Your task to perform on an android device: open app "Move to iOS" Image 0: 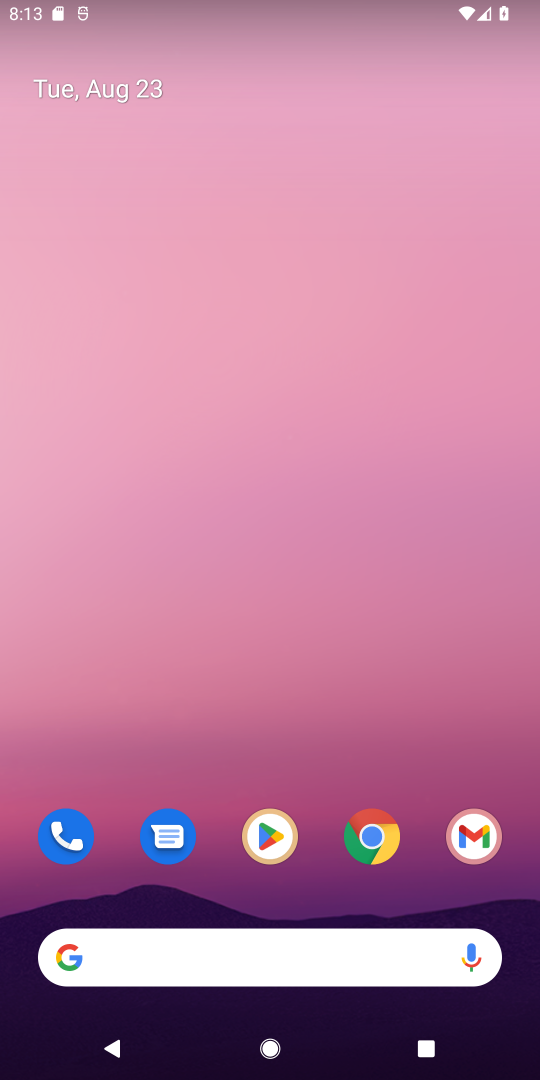
Step 0: click (260, 843)
Your task to perform on an android device: open app "Move to iOS" Image 1: 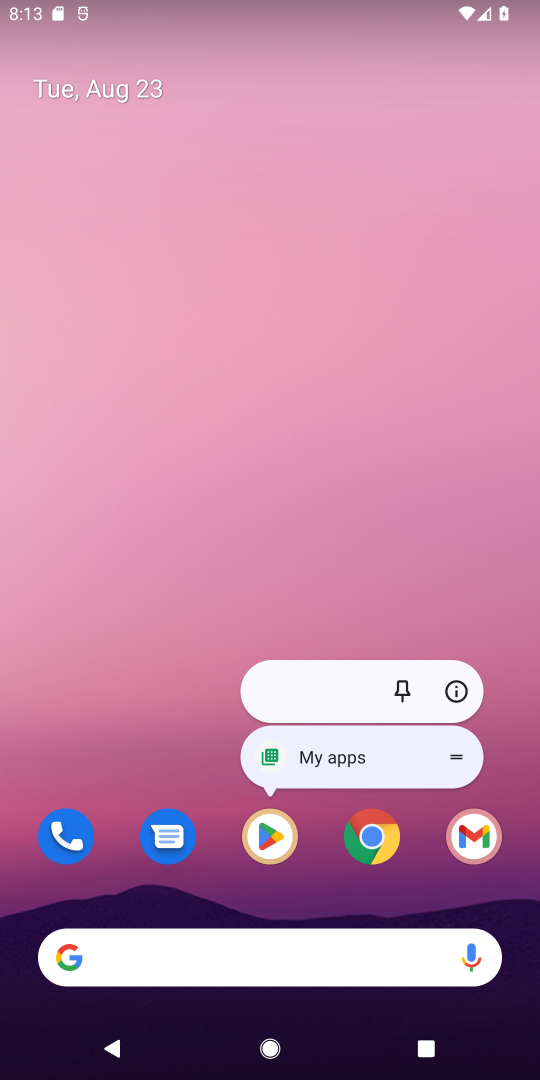
Step 1: click (275, 840)
Your task to perform on an android device: open app "Move to iOS" Image 2: 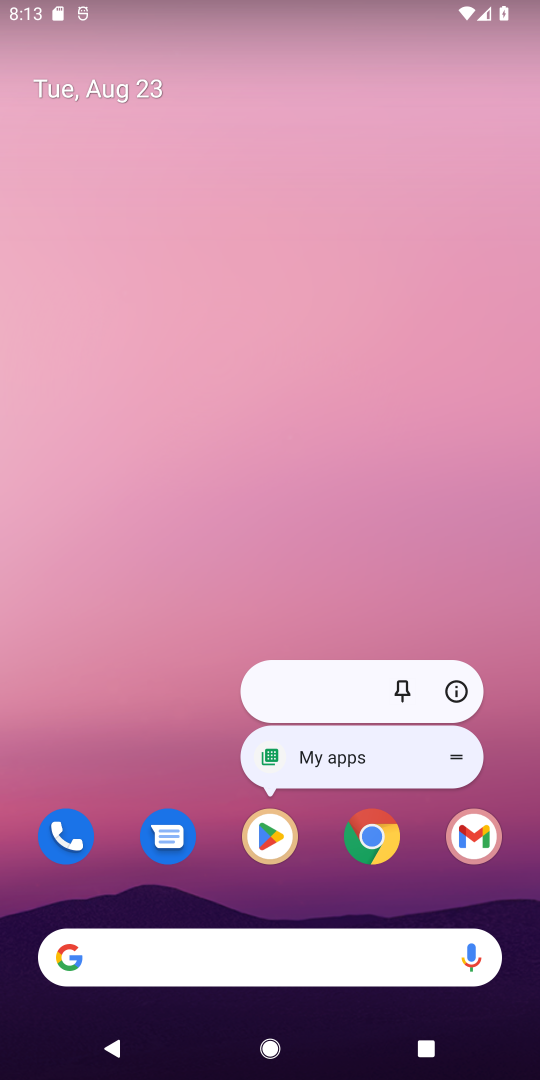
Step 2: click (266, 839)
Your task to perform on an android device: open app "Move to iOS" Image 3: 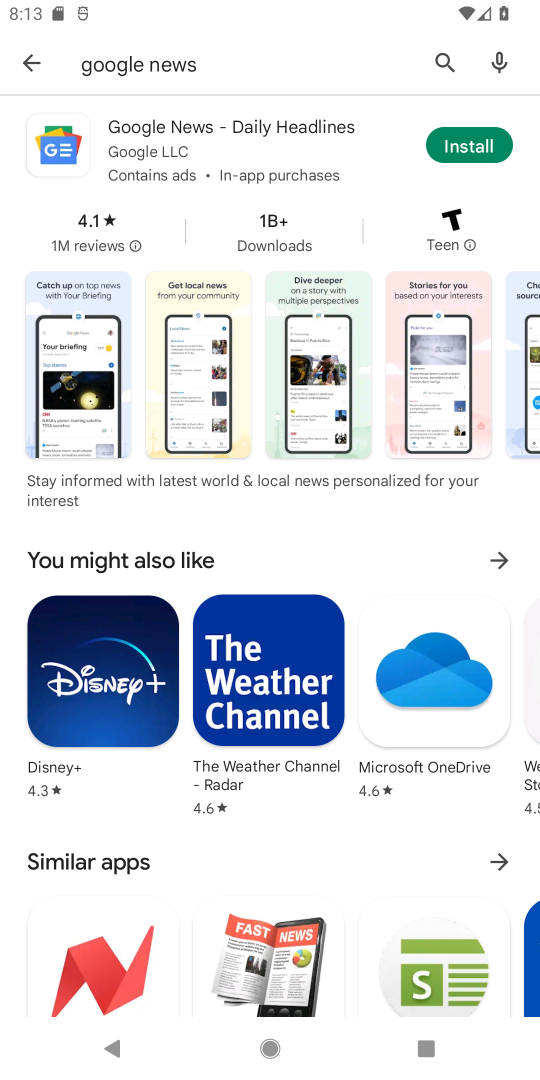
Step 3: click (441, 51)
Your task to perform on an android device: open app "Move to iOS" Image 4: 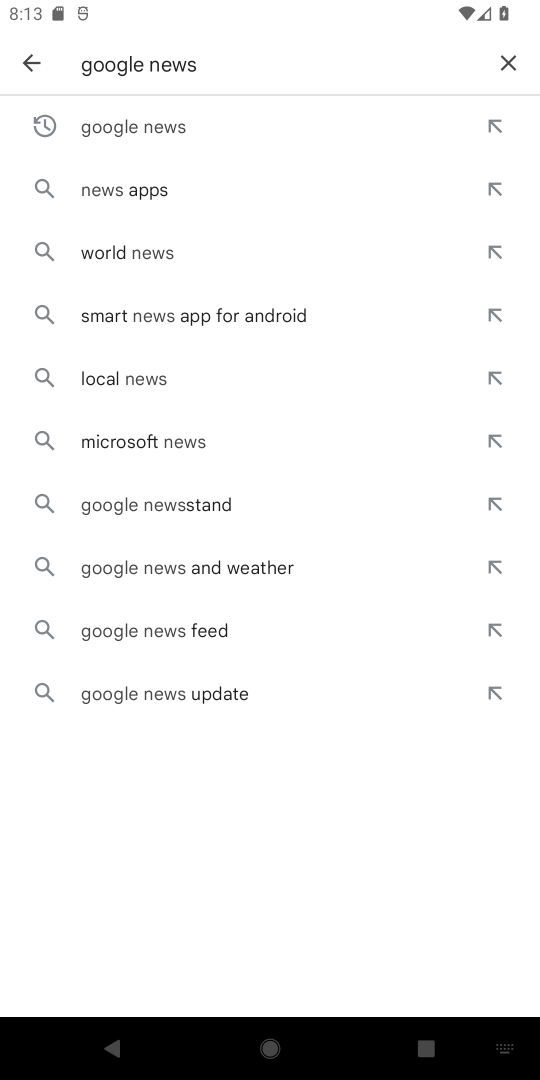
Step 4: click (506, 52)
Your task to perform on an android device: open app "Move to iOS" Image 5: 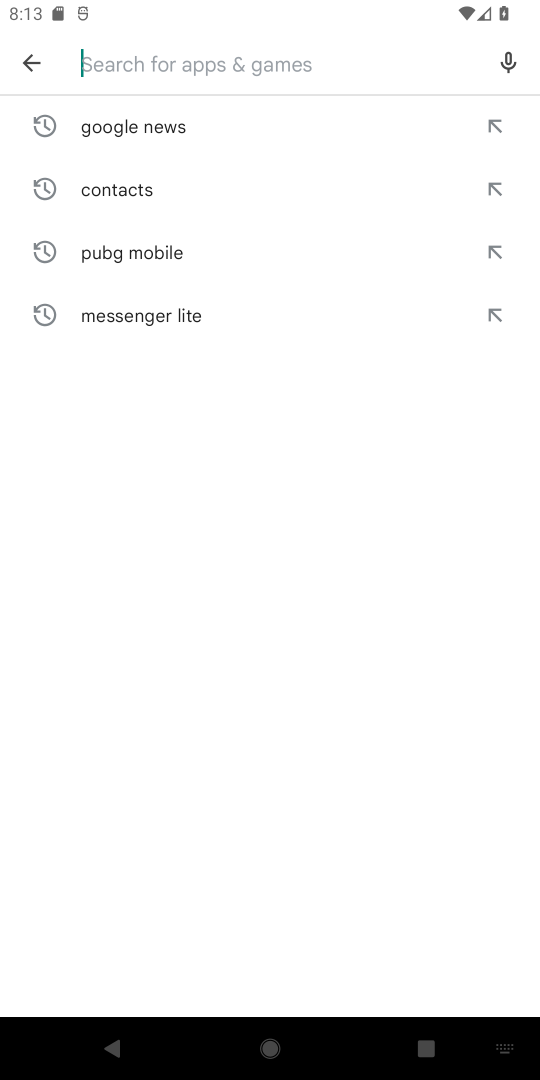
Step 5: type "Move to iOS"
Your task to perform on an android device: open app "Move to iOS" Image 6: 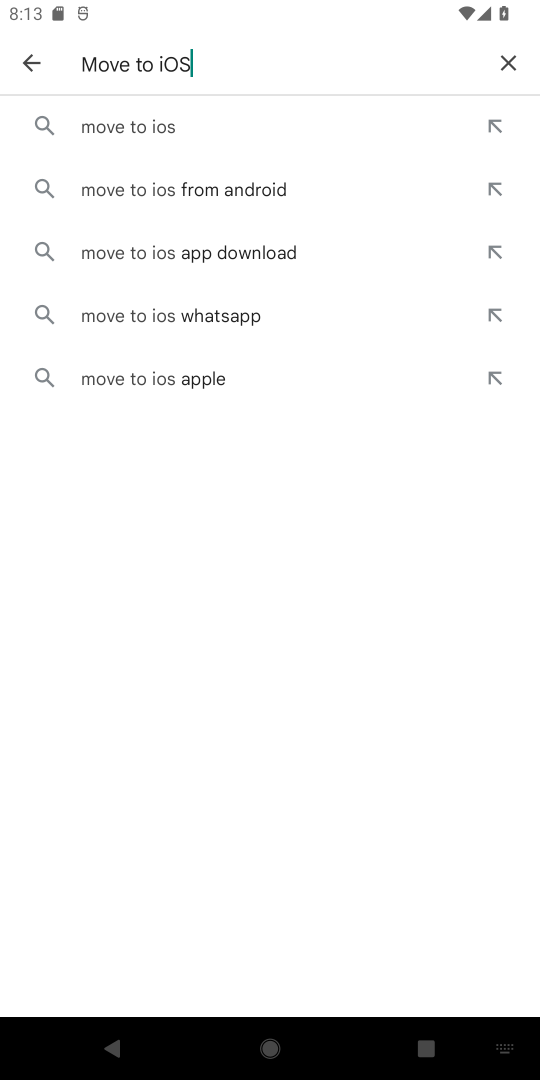
Step 6: click (143, 124)
Your task to perform on an android device: open app "Move to iOS" Image 7: 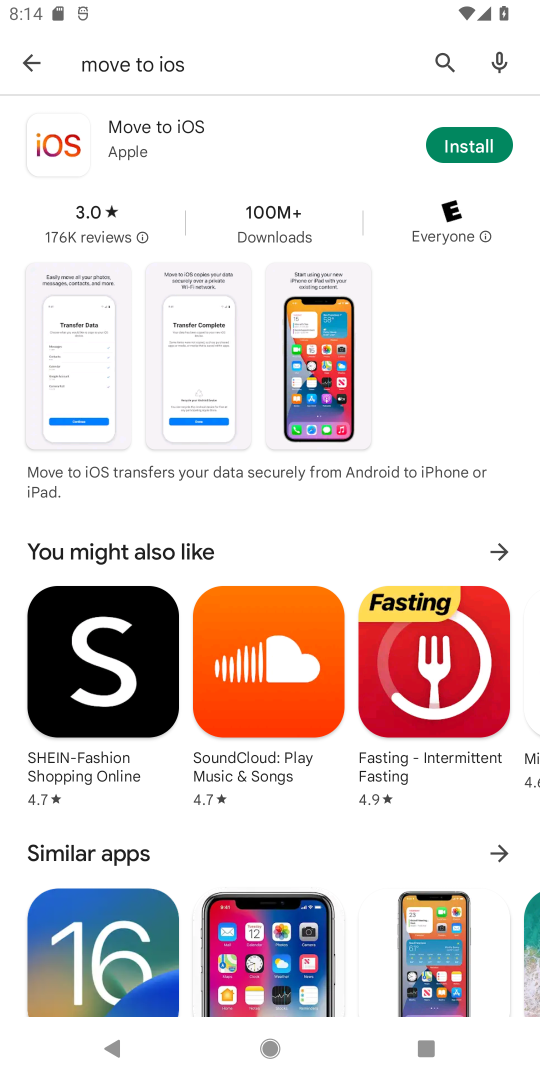
Step 7: task complete